Your task to perform on an android device: change timer sound Image 0: 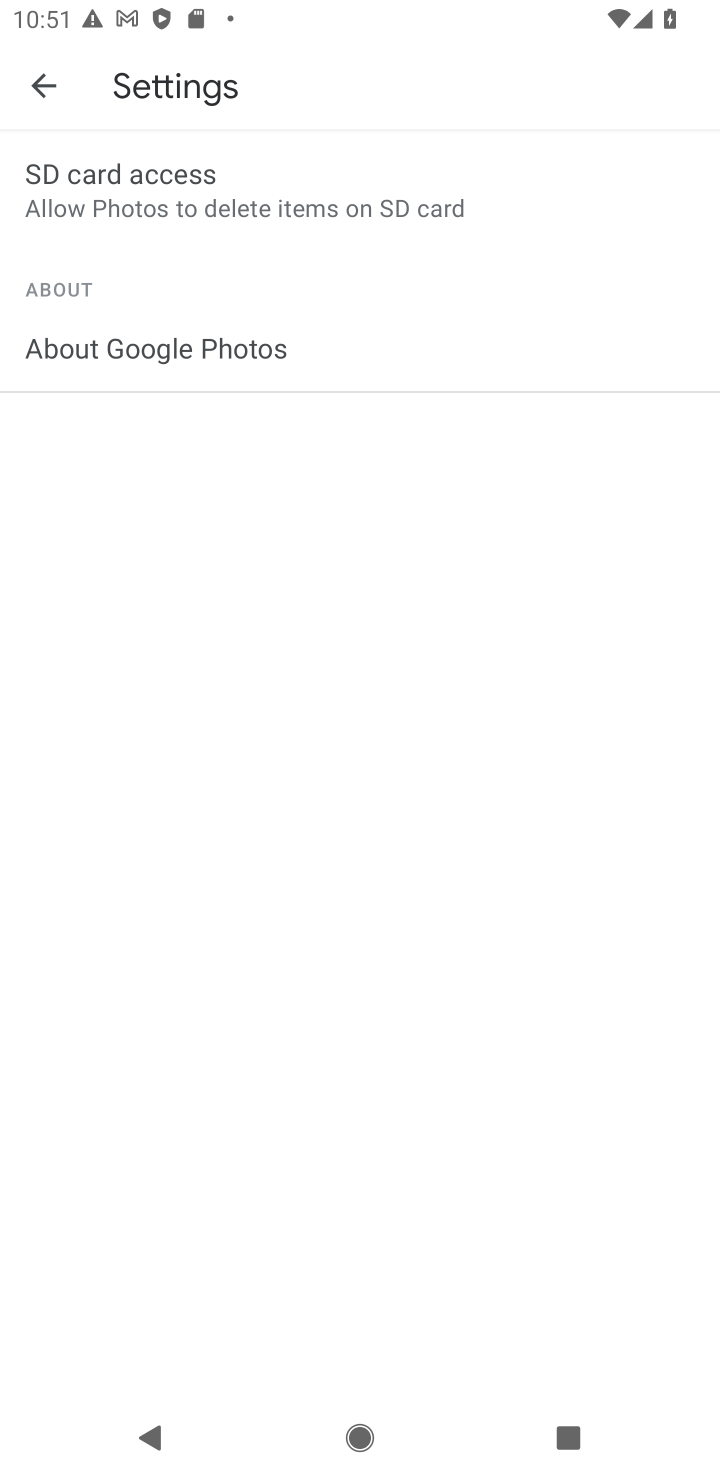
Step 0: press home button
Your task to perform on an android device: change timer sound Image 1: 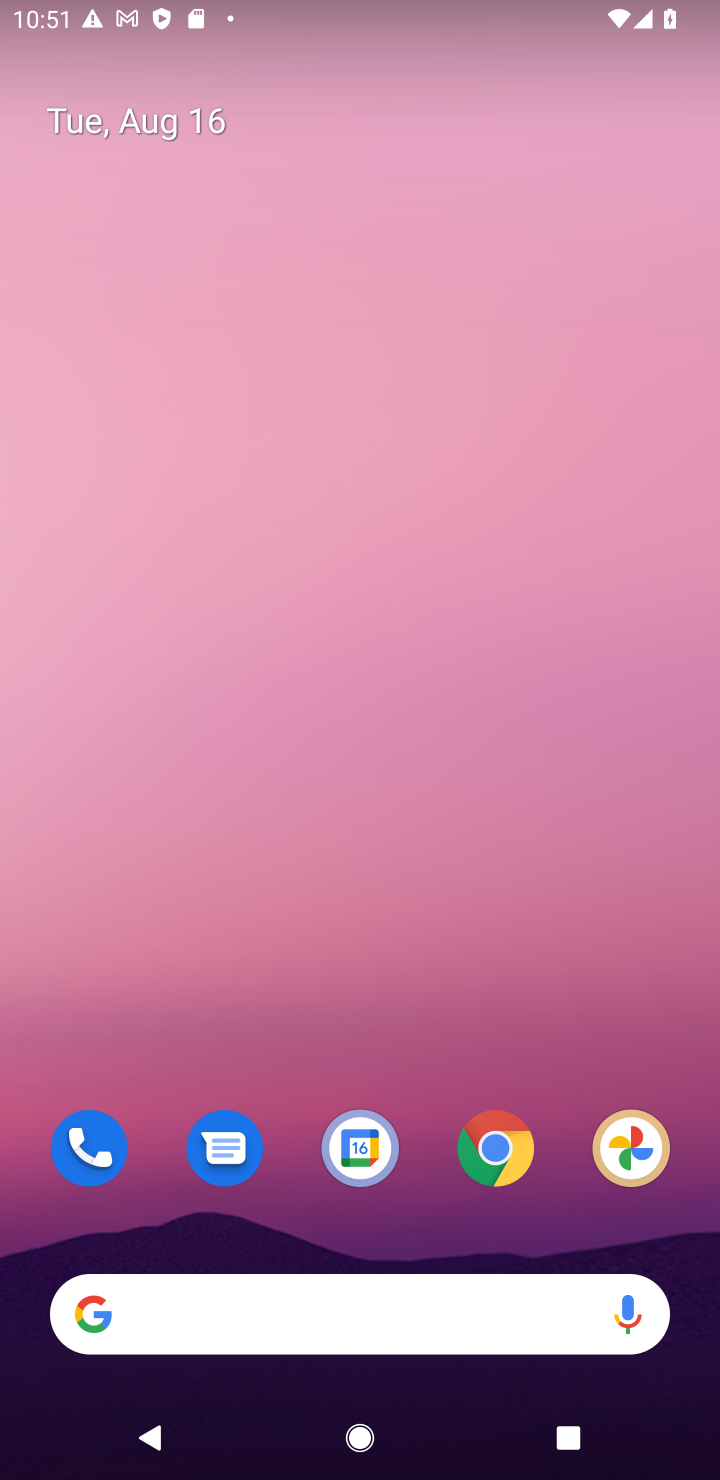
Step 1: press home button
Your task to perform on an android device: change timer sound Image 2: 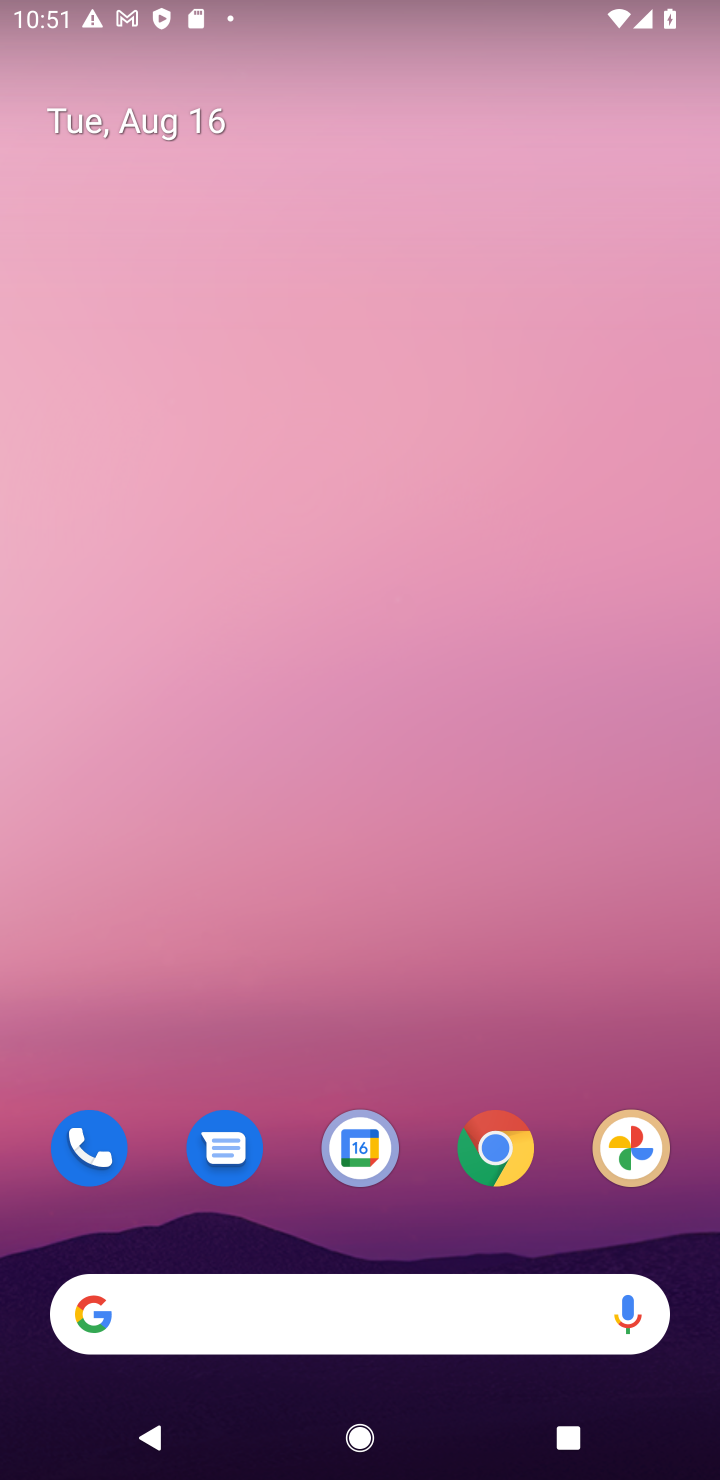
Step 2: press home button
Your task to perform on an android device: change timer sound Image 3: 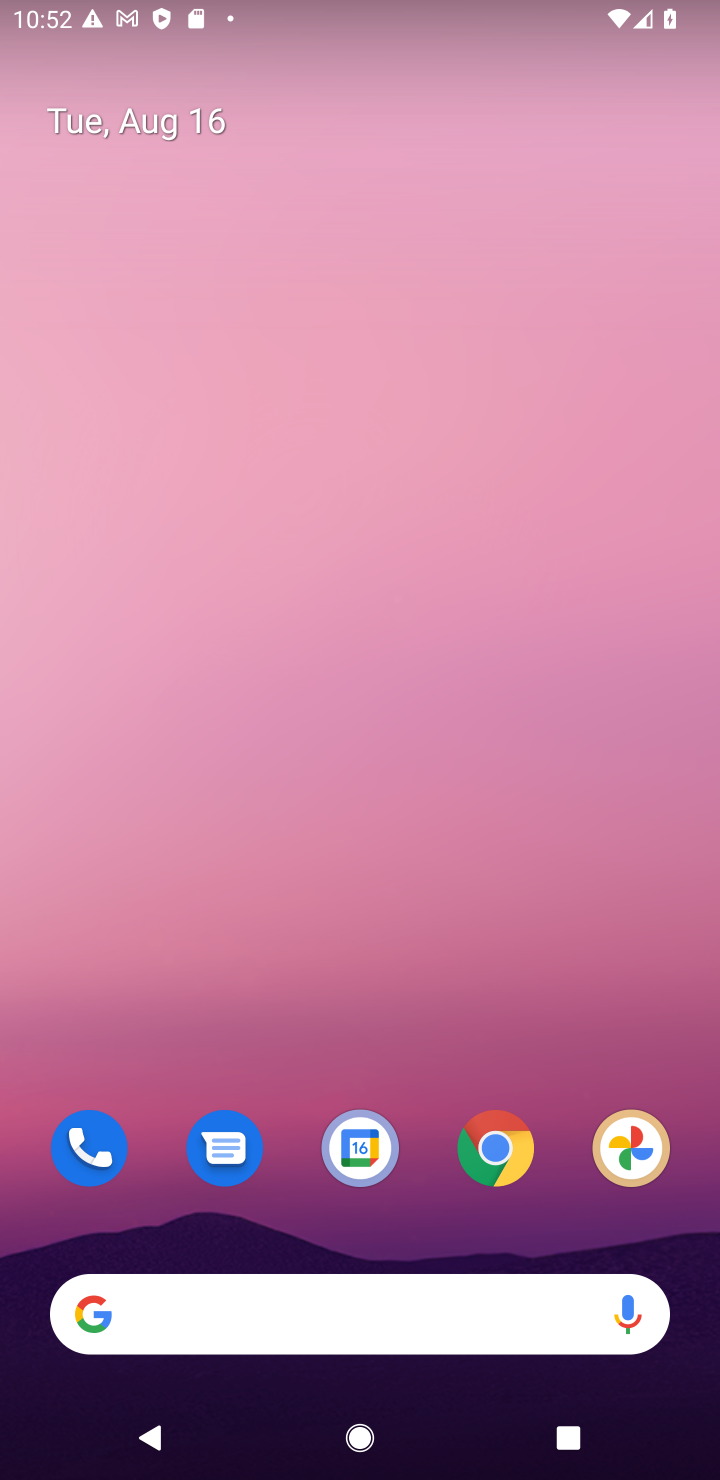
Step 3: drag from (494, 900) to (533, 166)
Your task to perform on an android device: change timer sound Image 4: 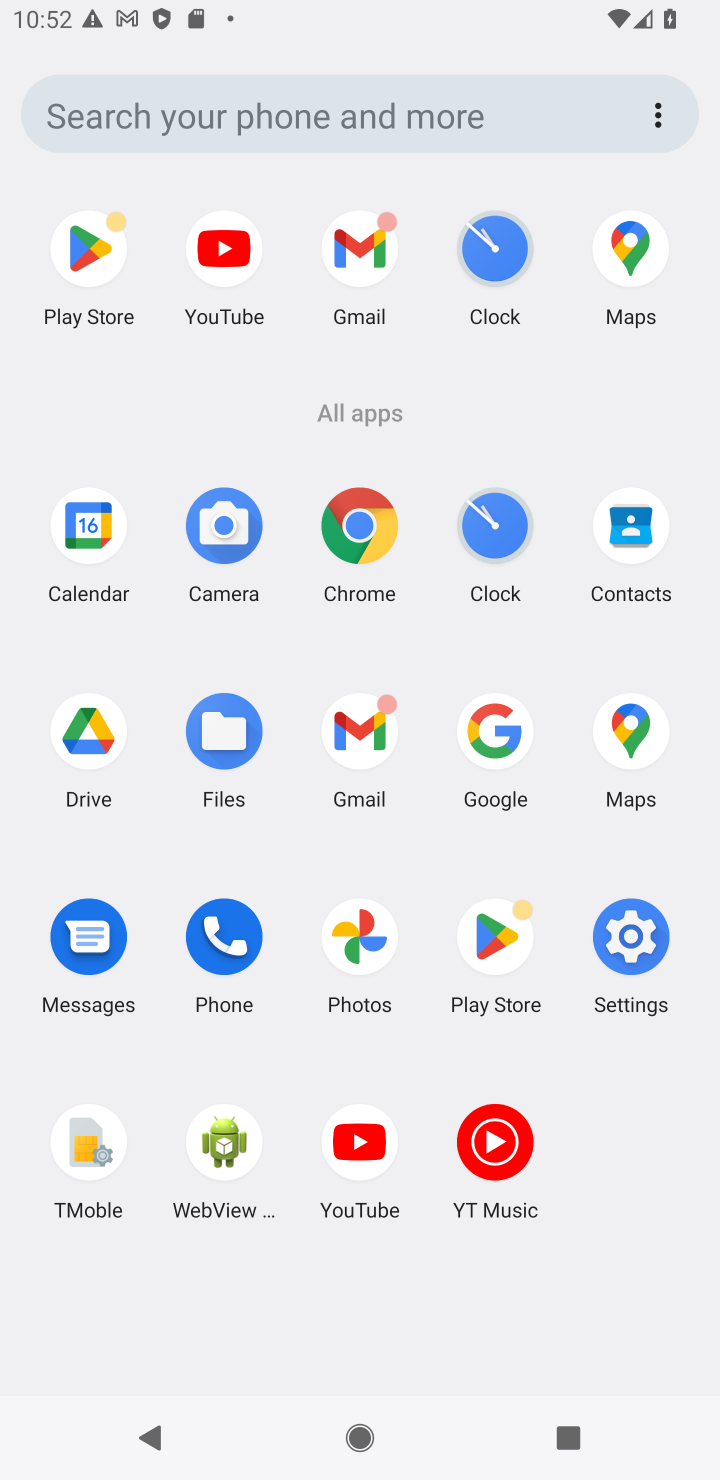
Step 4: click (501, 525)
Your task to perform on an android device: change timer sound Image 5: 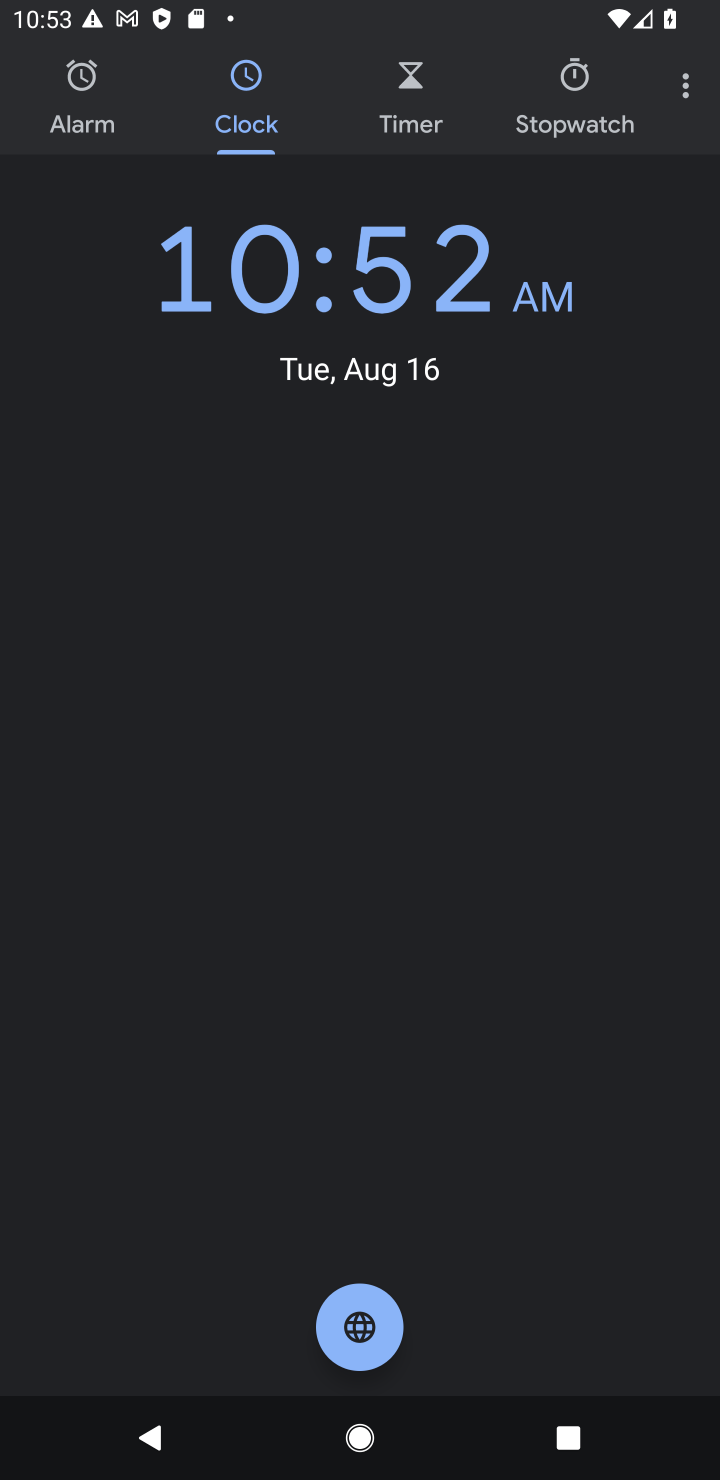
Step 5: click (674, 86)
Your task to perform on an android device: change timer sound Image 6: 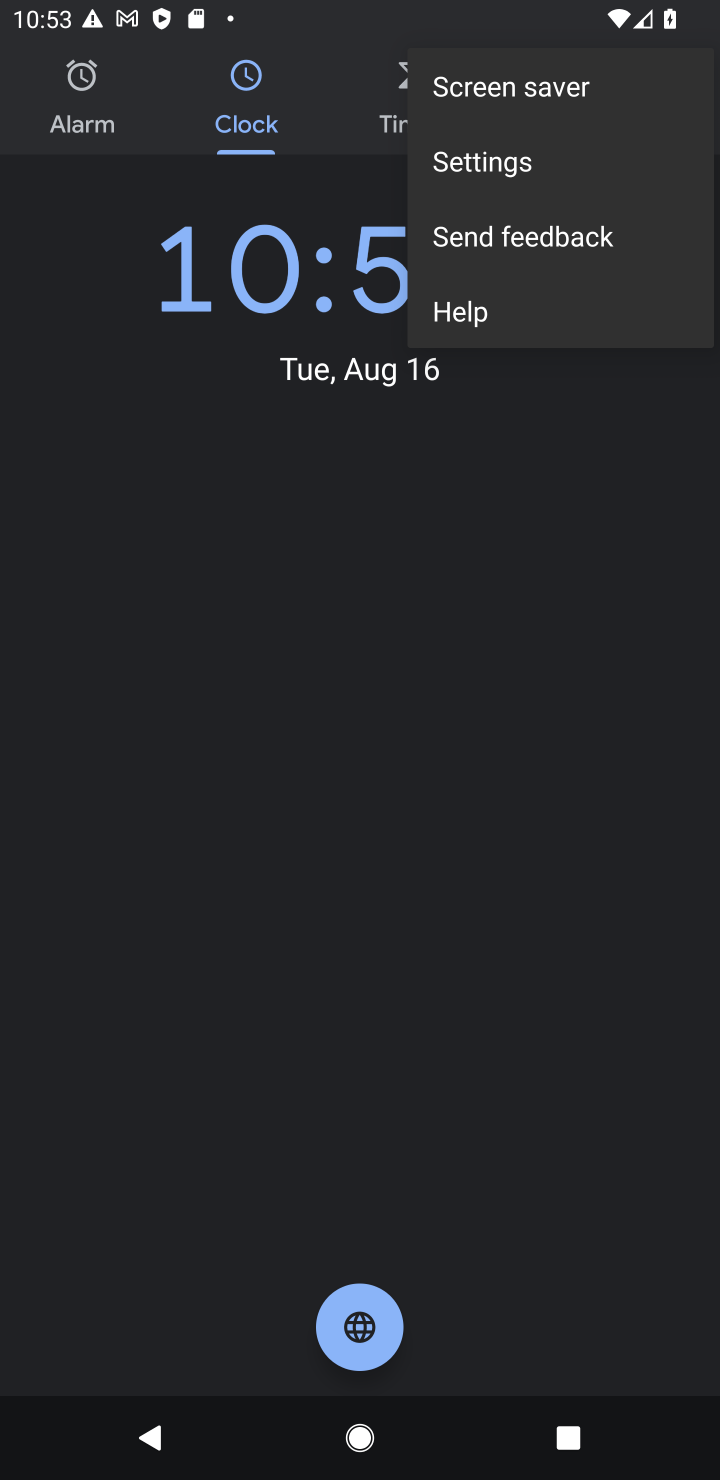
Step 6: click (482, 162)
Your task to perform on an android device: change timer sound Image 7: 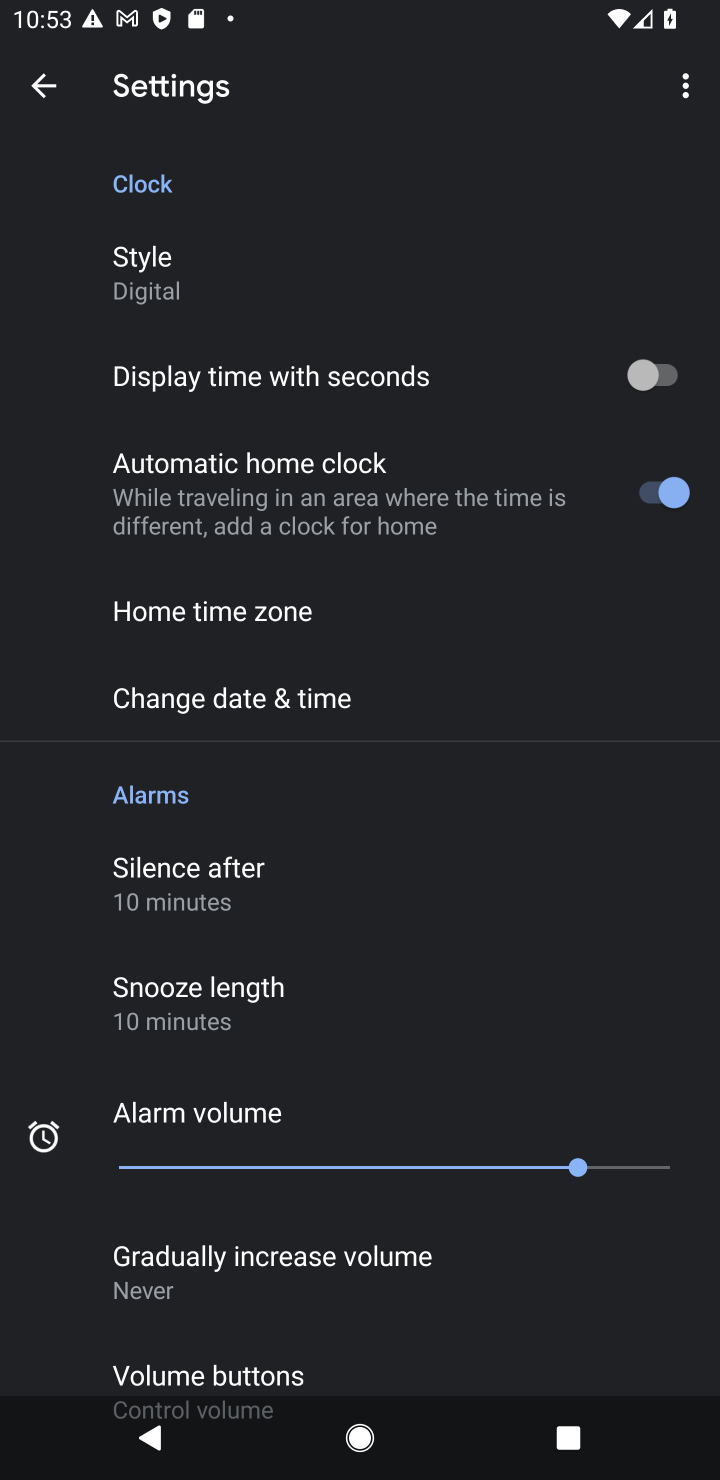
Step 7: drag from (262, 987) to (281, 81)
Your task to perform on an android device: change timer sound Image 8: 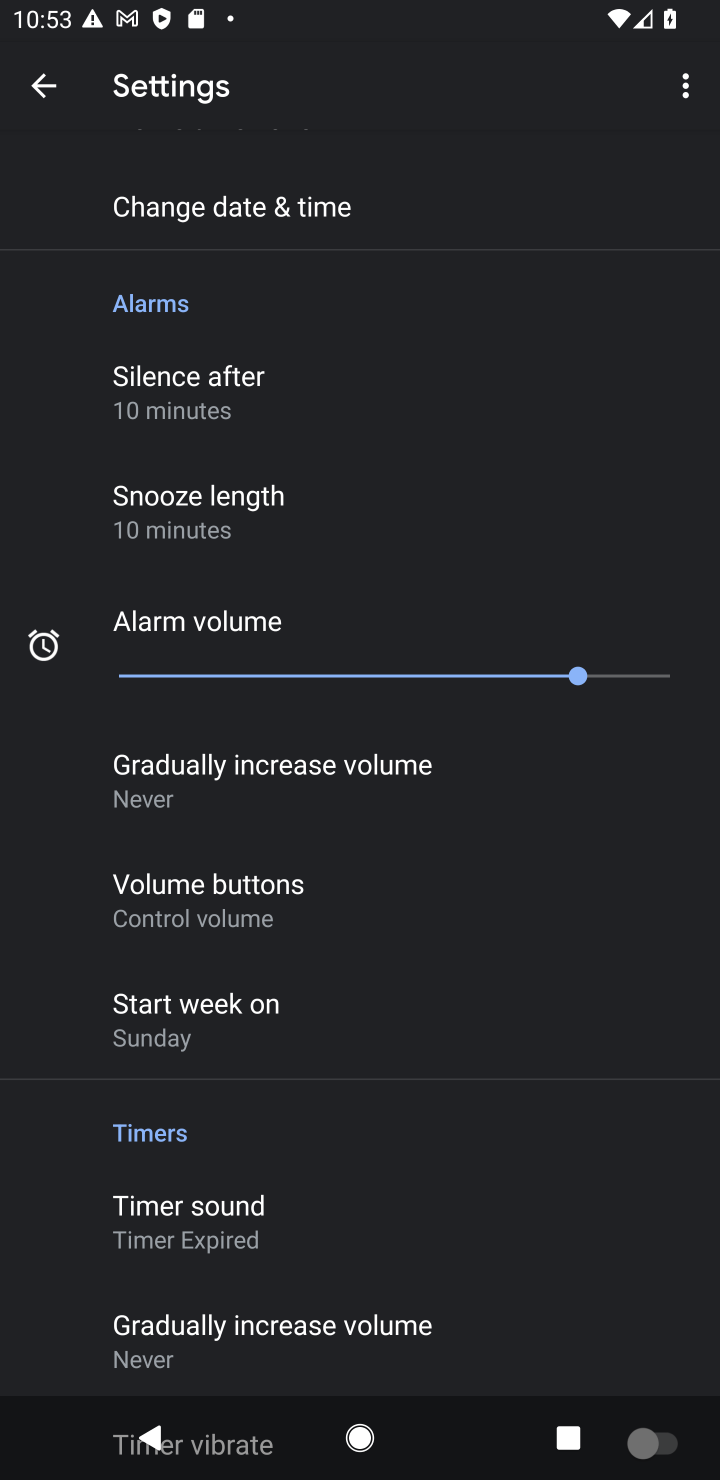
Step 8: click (327, 1212)
Your task to perform on an android device: change timer sound Image 9: 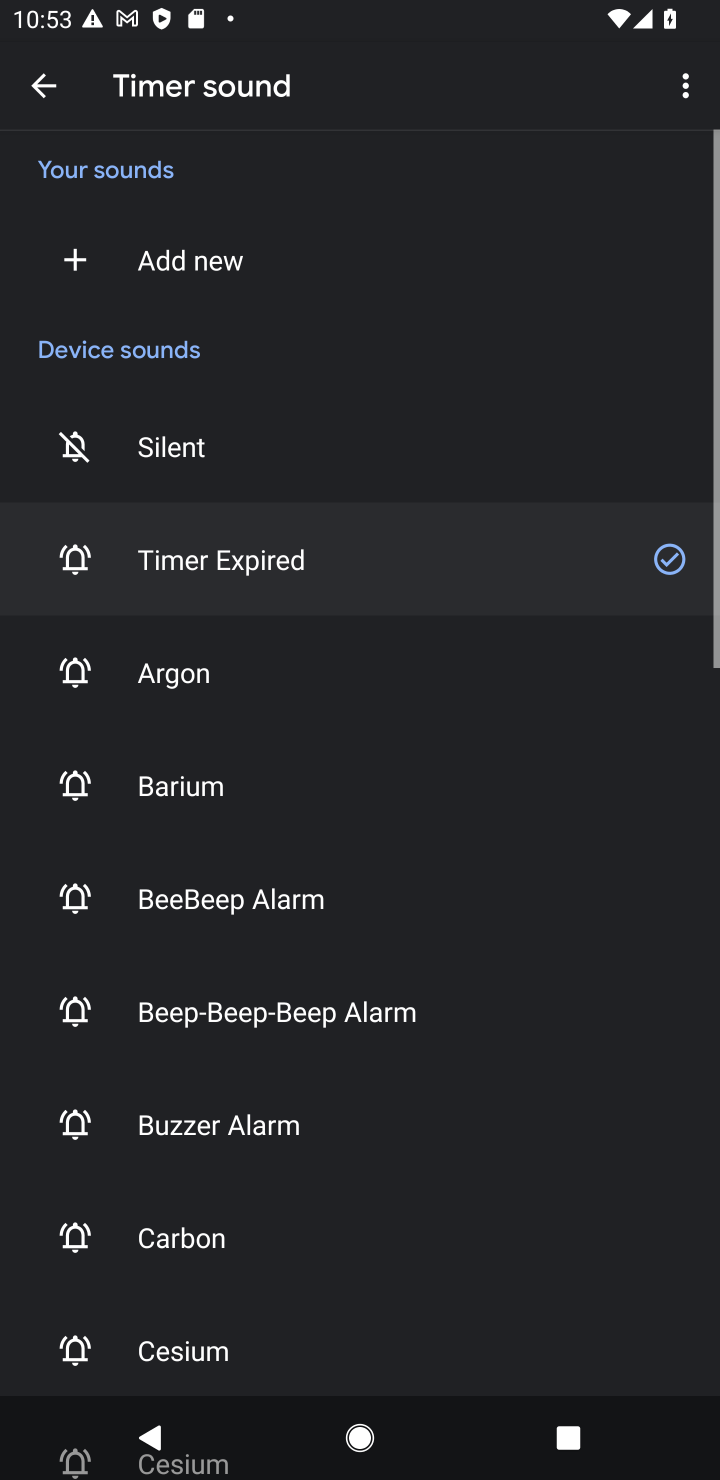
Step 9: click (299, 1021)
Your task to perform on an android device: change timer sound Image 10: 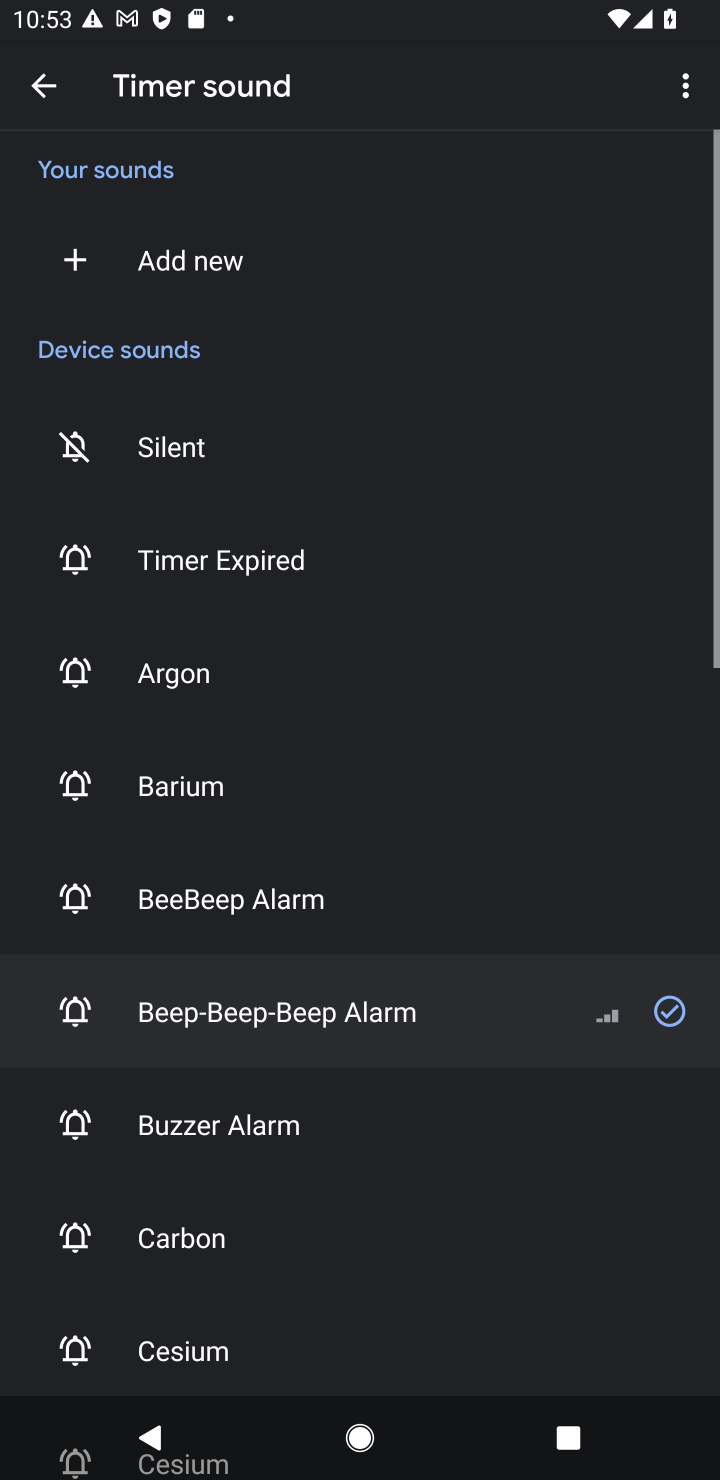
Step 10: task complete